Your task to perform on an android device: Go to eBay Image 0: 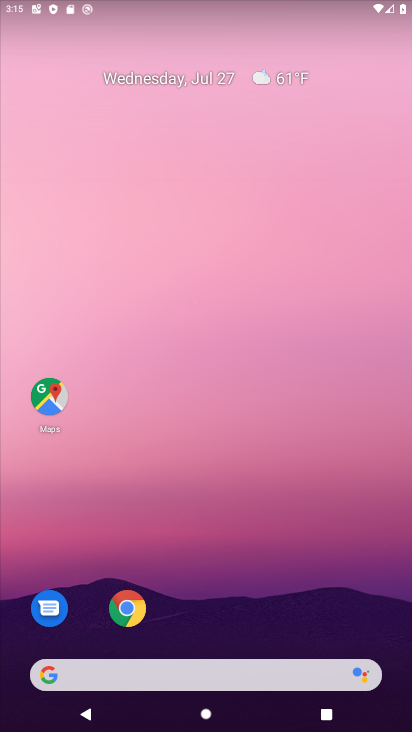
Step 0: click (135, 613)
Your task to perform on an android device: Go to eBay Image 1: 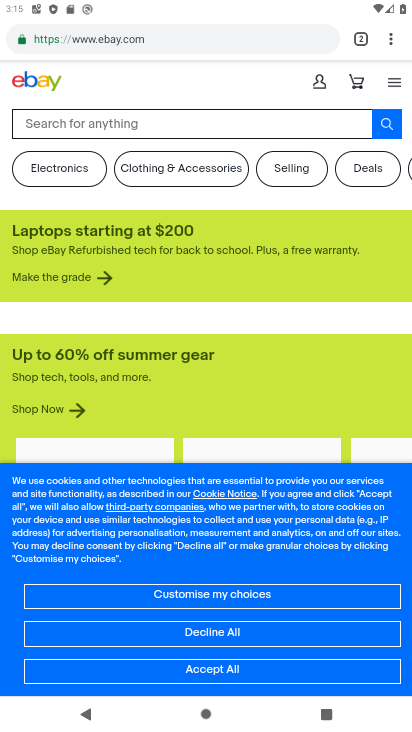
Step 1: task complete